Your task to perform on an android device: Open Wikipedia Image 0: 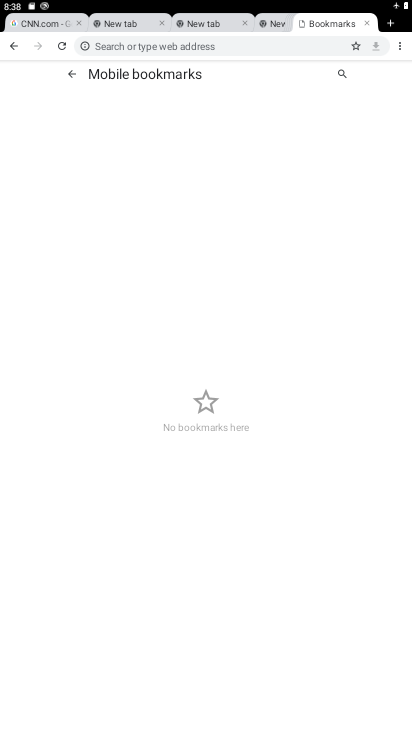
Step 0: press home button
Your task to perform on an android device: Open Wikipedia Image 1: 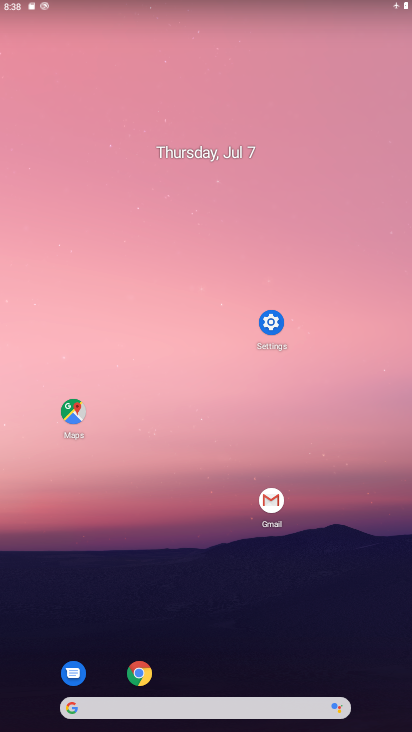
Step 1: drag from (368, 701) to (301, 48)
Your task to perform on an android device: Open Wikipedia Image 2: 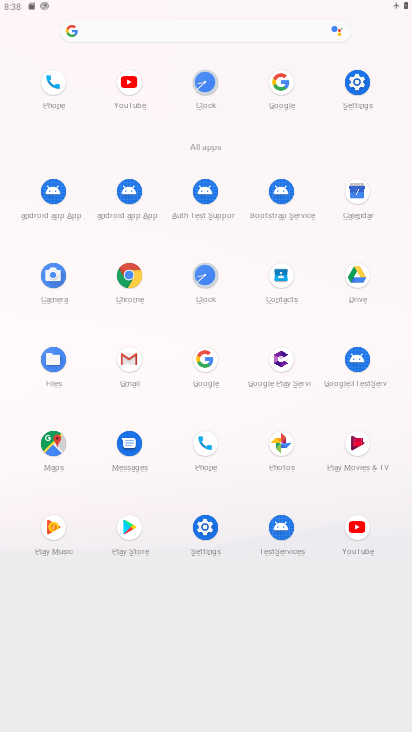
Step 2: click (126, 267)
Your task to perform on an android device: Open Wikipedia Image 3: 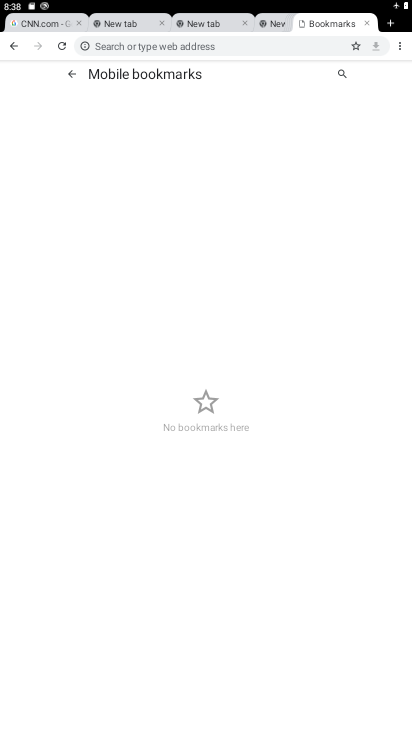
Step 3: press back button
Your task to perform on an android device: Open Wikipedia Image 4: 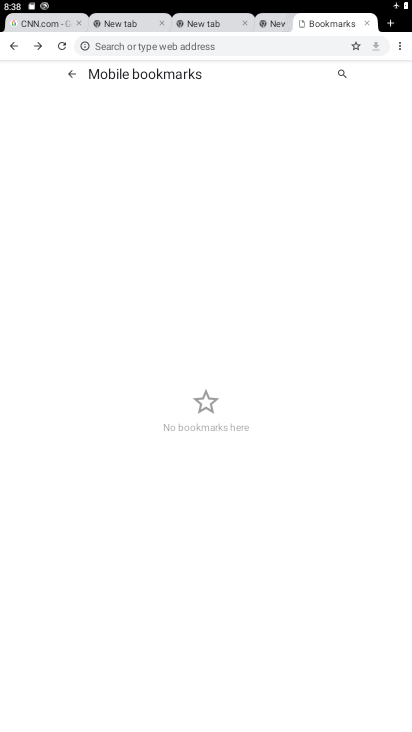
Step 4: press home button
Your task to perform on an android device: Open Wikipedia Image 5: 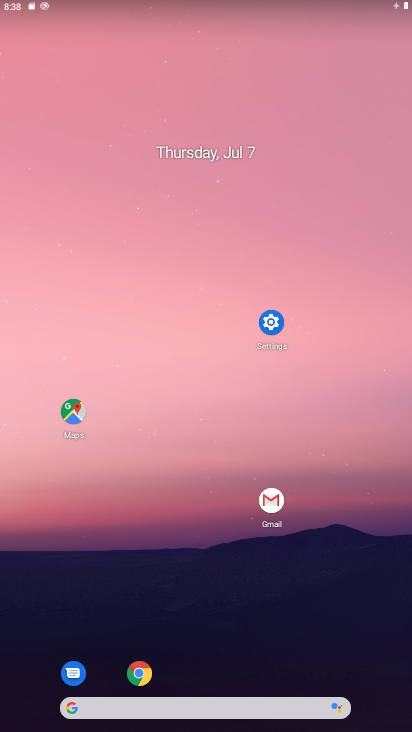
Step 5: click (72, 413)
Your task to perform on an android device: Open Wikipedia Image 6: 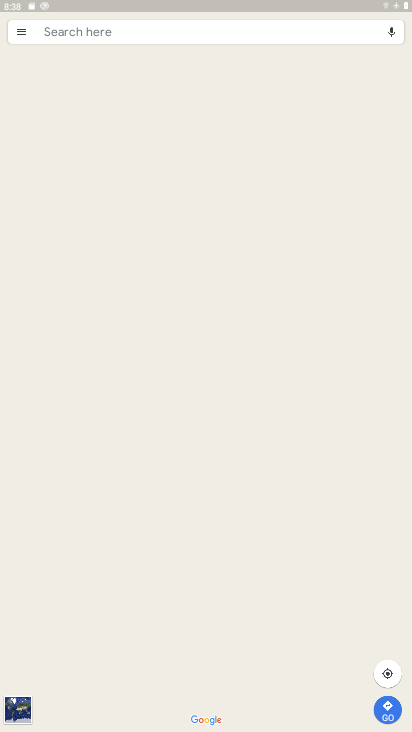
Step 6: press home button
Your task to perform on an android device: Open Wikipedia Image 7: 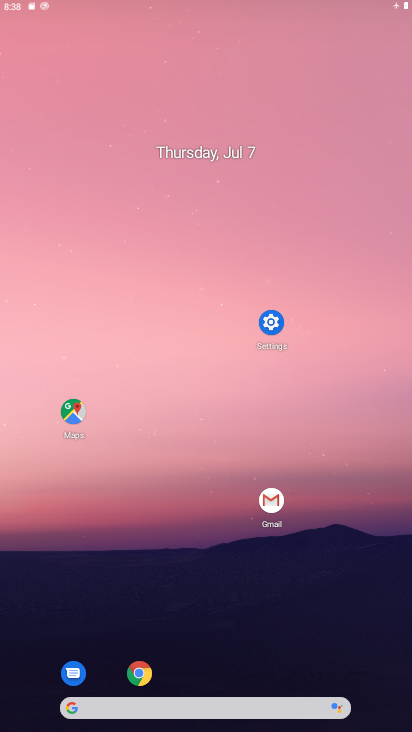
Step 7: click (142, 669)
Your task to perform on an android device: Open Wikipedia Image 8: 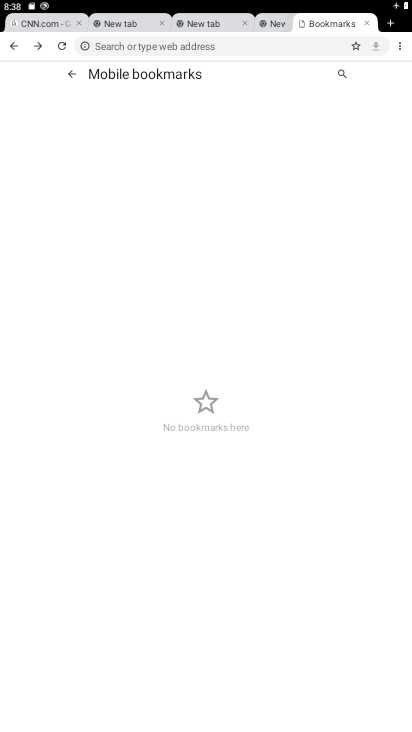
Step 8: press back button
Your task to perform on an android device: Open Wikipedia Image 9: 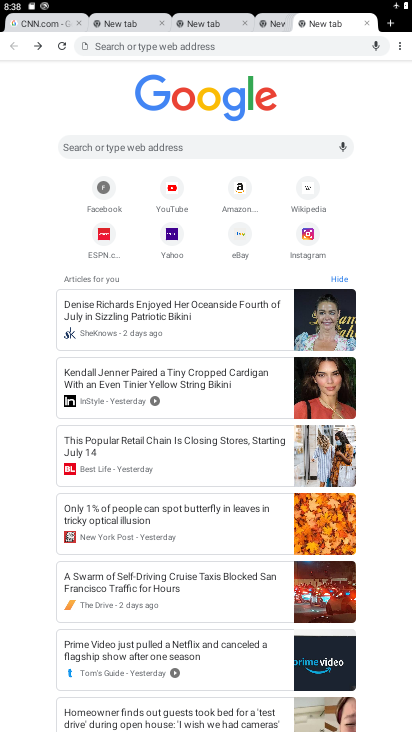
Step 9: click (222, 46)
Your task to perform on an android device: Open Wikipedia Image 10: 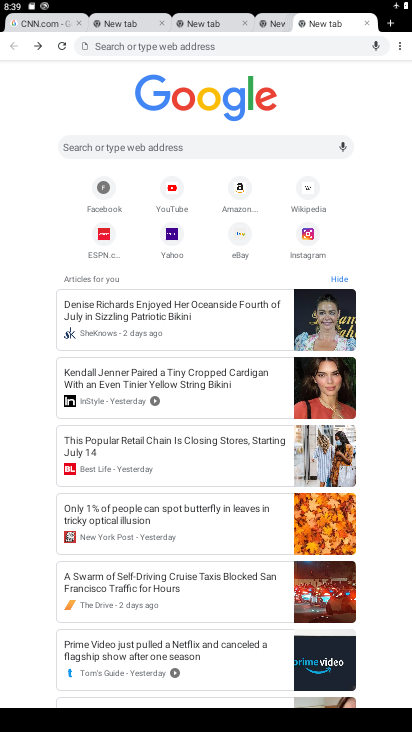
Step 10: type "Wikipedia"
Your task to perform on an android device: Open Wikipedia Image 11: 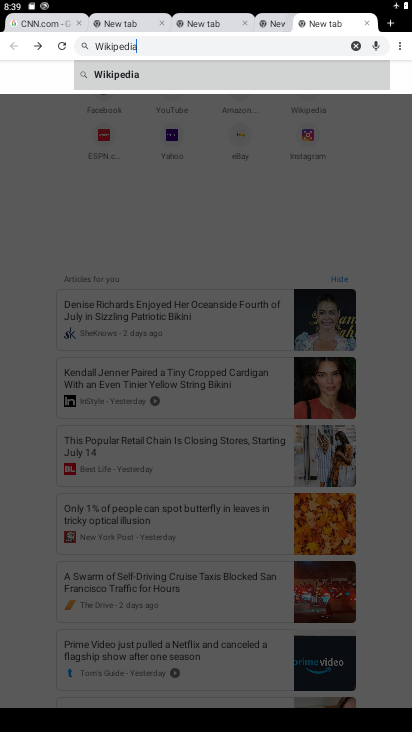
Step 11: click (183, 79)
Your task to perform on an android device: Open Wikipedia Image 12: 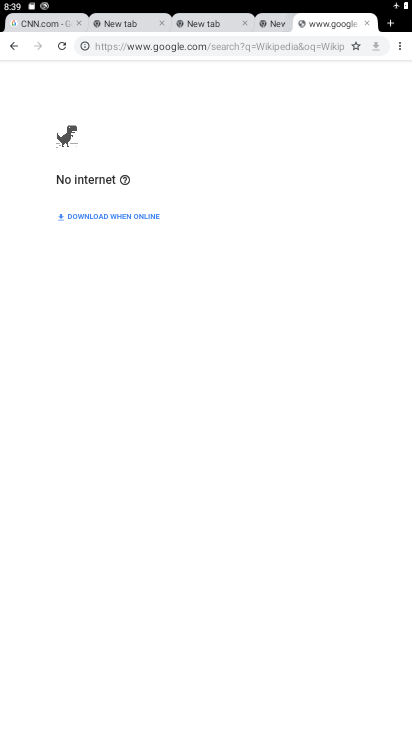
Step 12: task complete